Your task to perform on an android device: Go to Reddit.com Image 0: 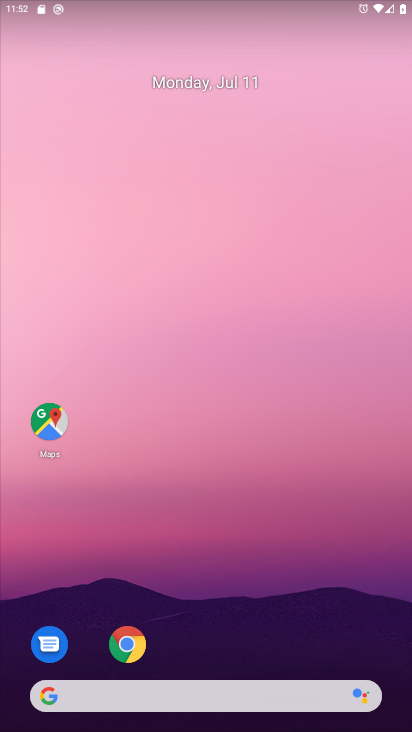
Step 0: click (128, 645)
Your task to perform on an android device: Go to Reddit.com Image 1: 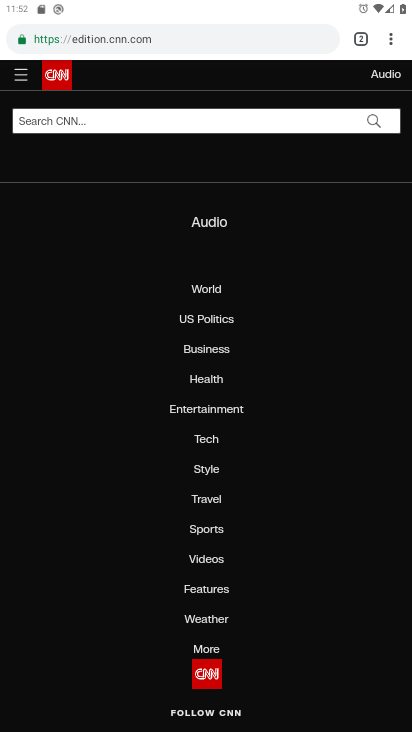
Step 1: click (204, 46)
Your task to perform on an android device: Go to Reddit.com Image 2: 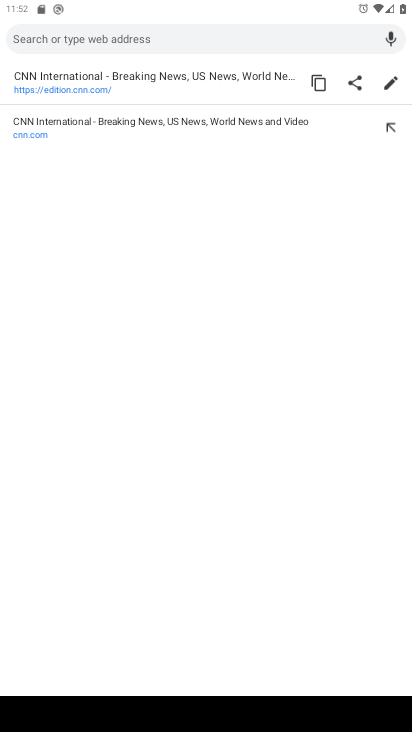
Step 2: type "Reddit.com"
Your task to perform on an android device: Go to Reddit.com Image 3: 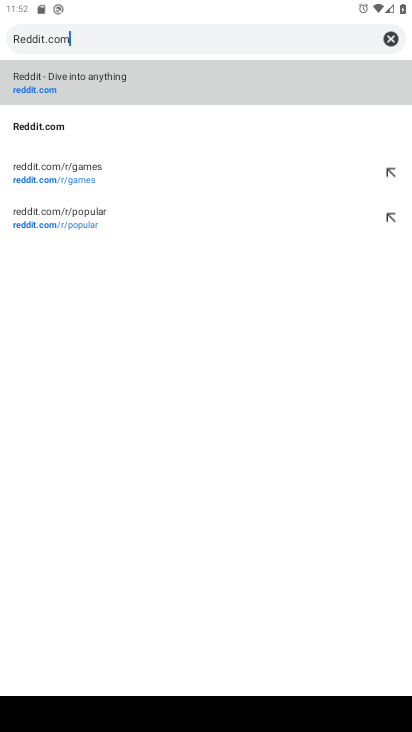
Step 3: click (101, 73)
Your task to perform on an android device: Go to Reddit.com Image 4: 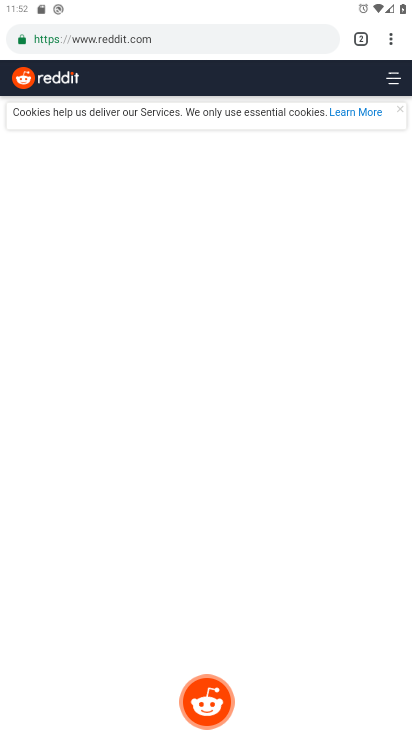
Step 4: task complete